Your task to perform on an android device: Go to calendar. Show me events next week Image 0: 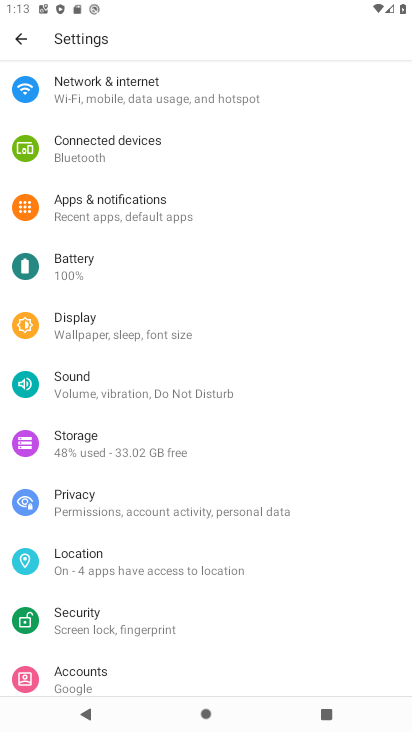
Step 0: press home button
Your task to perform on an android device: Go to calendar. Show me events next week Image 1: 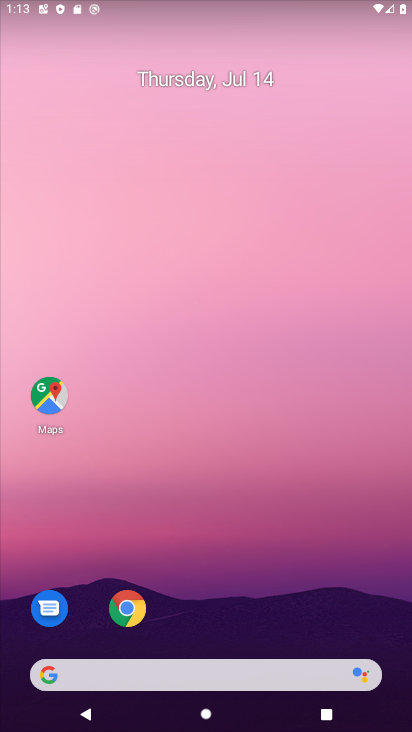
Step 1: drag from (381, 636) to (332, 102)
Your task to perform on an android device: Go to calendar. Show me events next week Image 2: 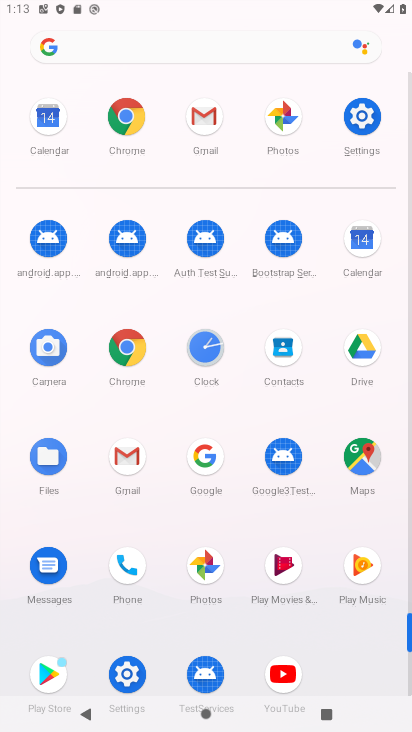
Step 2: click (357, 241)
Your task to perform on an android device: Go to calendar. Show me events next week Image 3: 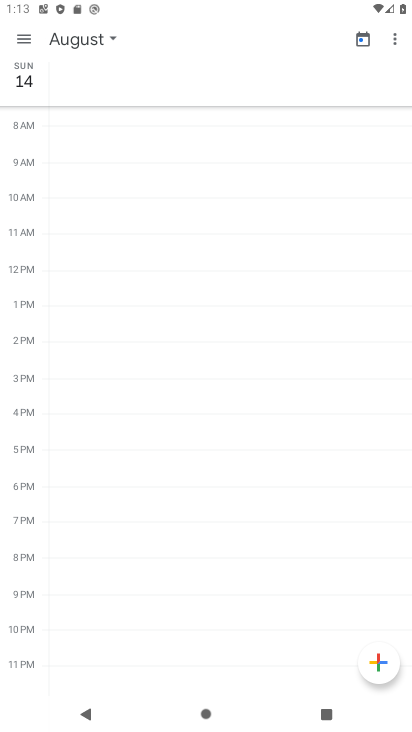
Step 3: click (21, 37)
Your task to perform on an android device: Go to calendar. Show me events next week Image 4: 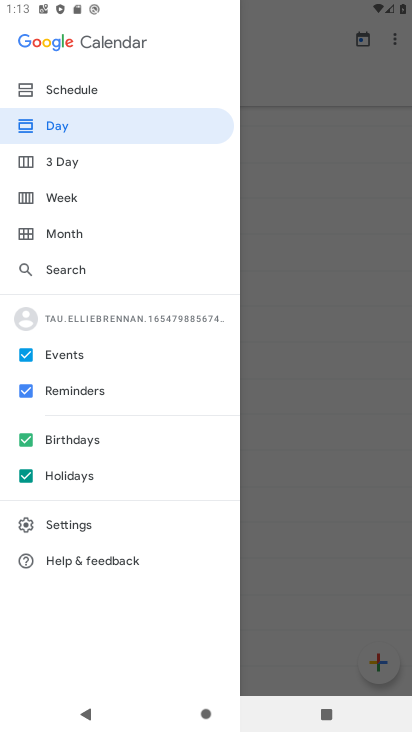
Step 4: click (62, 200)
Your task to perform on an android device: Go to calendar. Show me events next week Image 5: 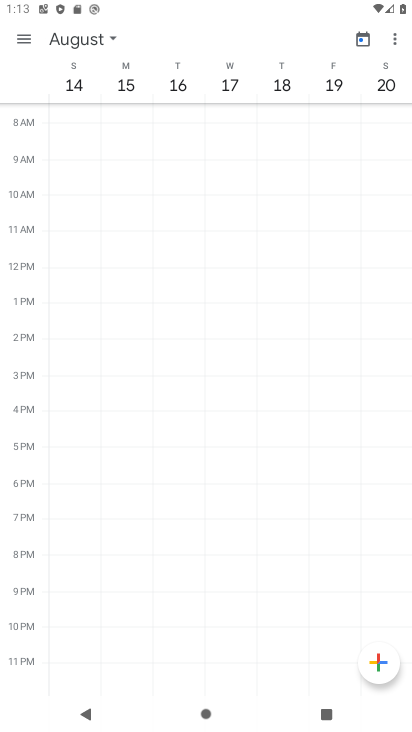
Step 5: click (108, 39)
Your task to perform on an android device: Go to calendar. Show me events next week Image 6: 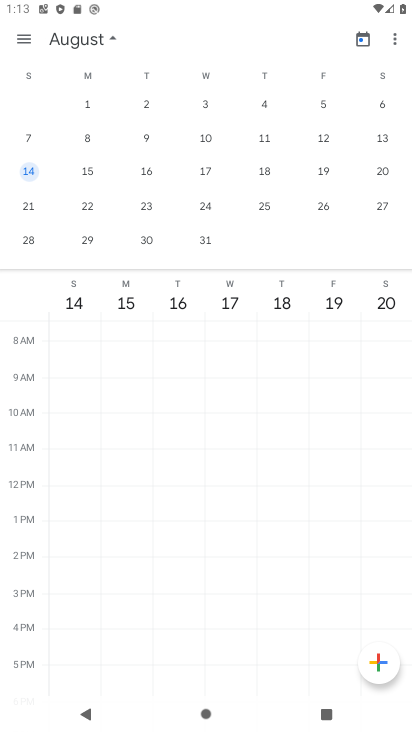
Step 6: click (22, 206)
Your task to perform on an android device: Go to calendar. Show me events next week Image 7: 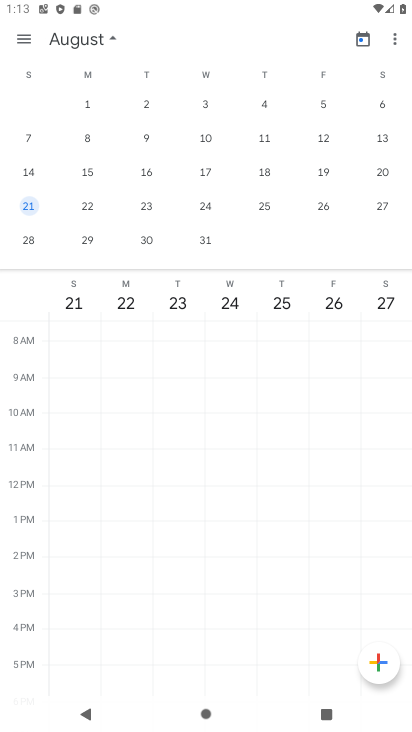
Step 7: drag from (23, 171) to (357, 192)
Your task to perform on an android device: Go to calendar. Show me events next week Image 8: 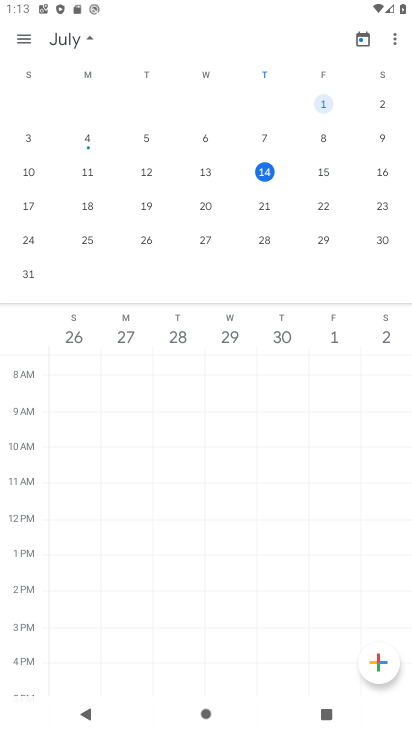
Step 8: click (26, 204)
Your task to perform on an android device: Go to calendar. Show me events next week Image 9: 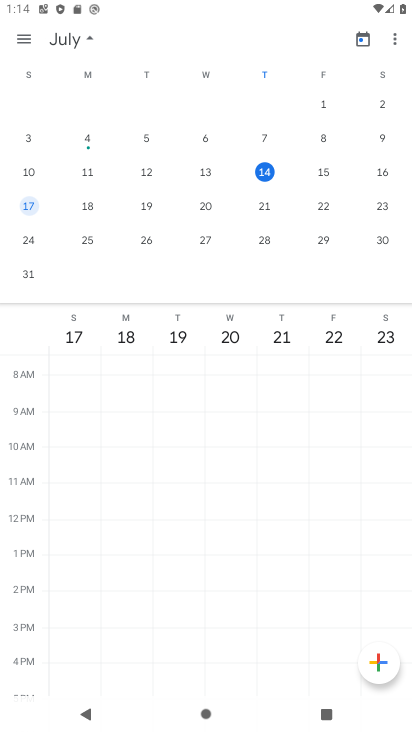
Step 9: task complete